Your task to perform on an android device: check battery use Image 0: 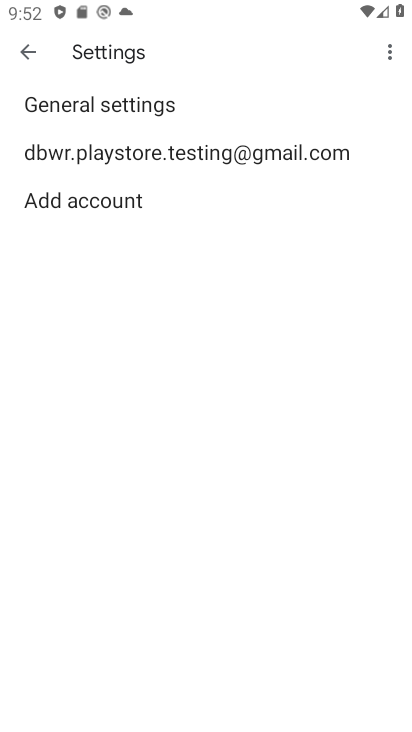
Step 0: press home button
Your task to perform on an android device: check battery use Image 1: 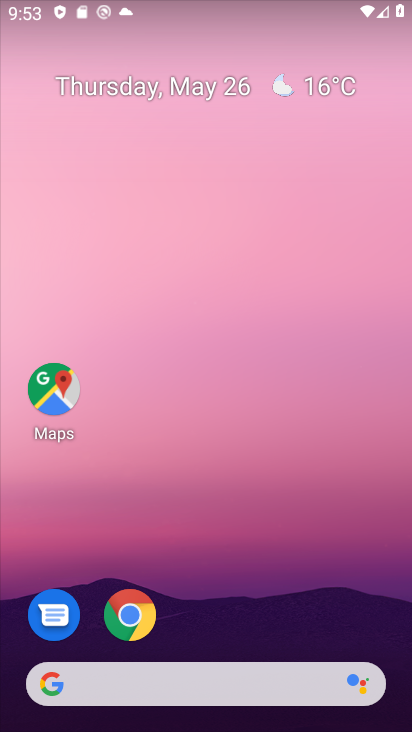
Step 1: drag from (235, 721) to (260, 135)
Your task to perform on an android device: check battery use Image 2: 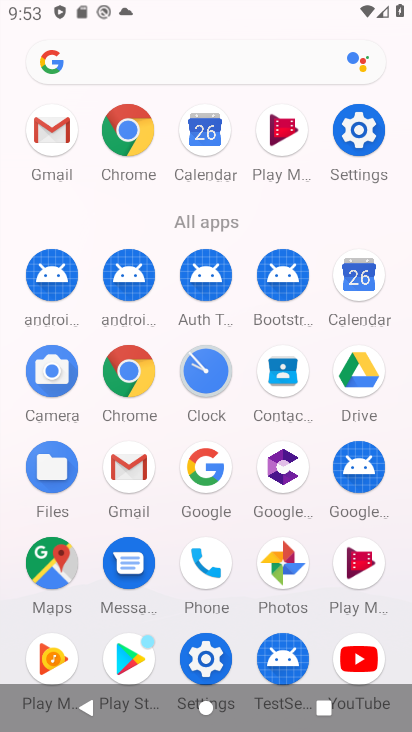
Step 2: click (342, 137)
Your task to perform on an android device: check battery use Image 3: 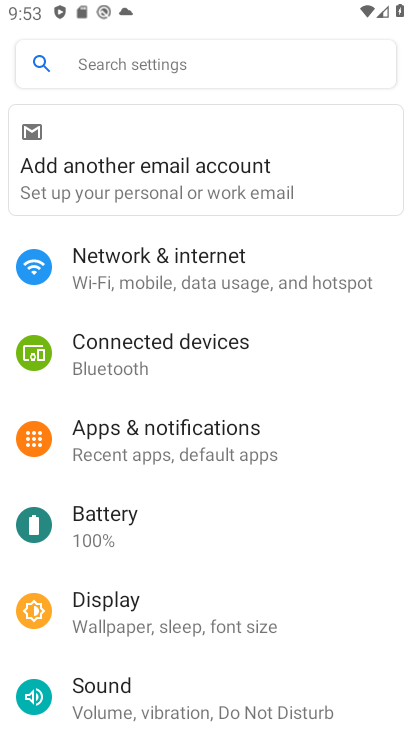
Step 3: click (146, 522)
Your task to perform on an android device: check battery use Image 4: 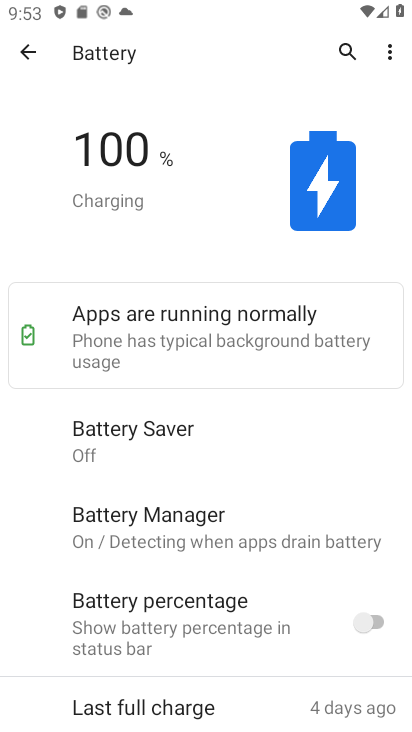
Step 4: task complete